Your task to perform on an android device: empty trash in the gmail app Image 0: 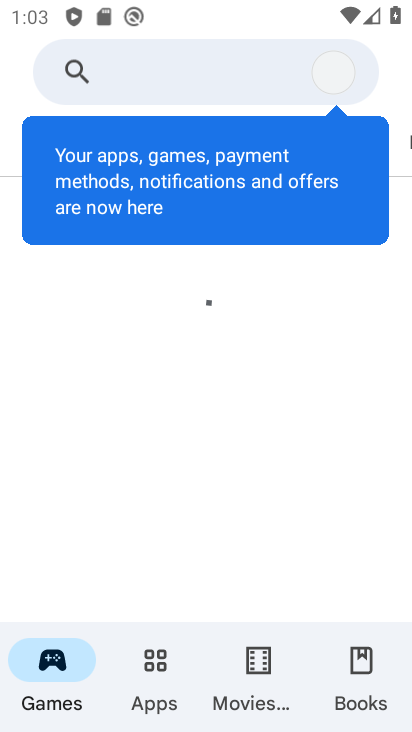
Step 0: press home button
Your task to perform on an android device: empty trash in the gmail app Image 1: 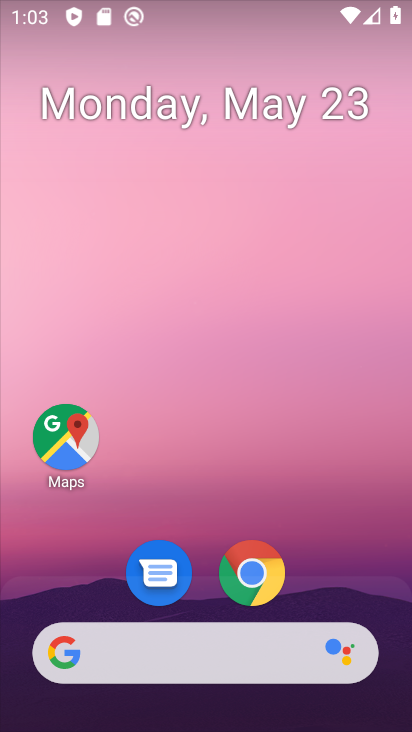
Step 1: drag from (315, 611) to (289, 83)
Your task to perform on an android device: empty trash in the gmail app Image 2: 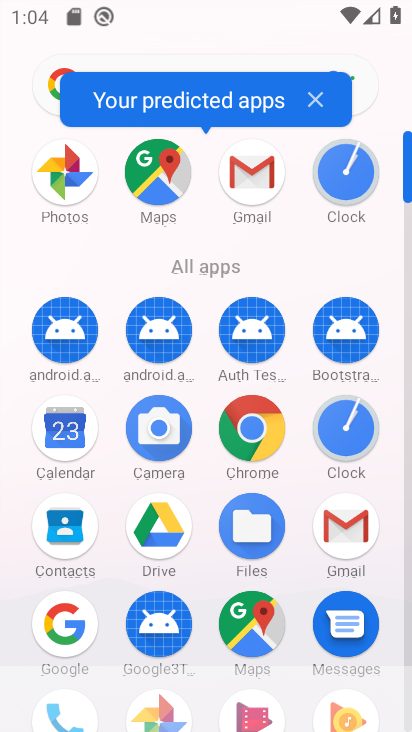
Step 2: click (339, 511)
Your task to perform on an android device: empty trash in the gmail app Image 3: 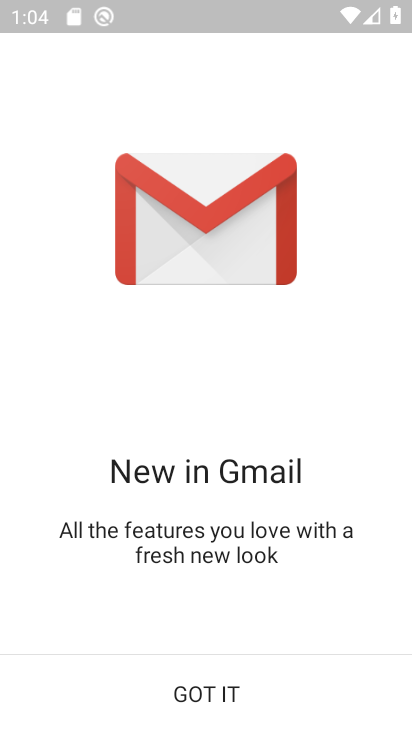
Step 3: click (202, 684)
Your task to perform on an android device: empty trash in the gmail app Image 4: 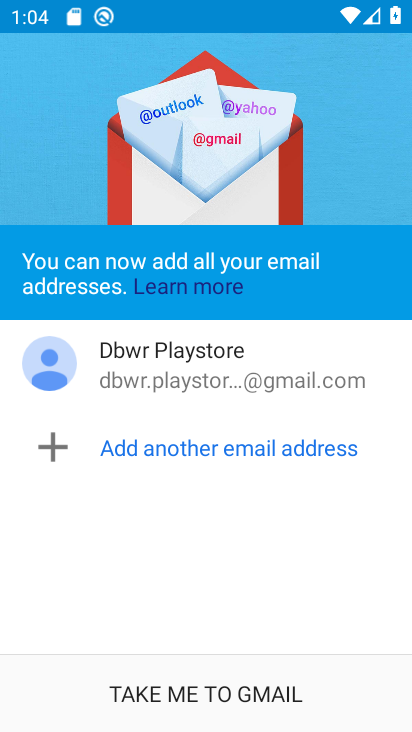
Step 4: click (202, 684)
Your task to perform on an android device: empty trash in the gmail app Image 5: 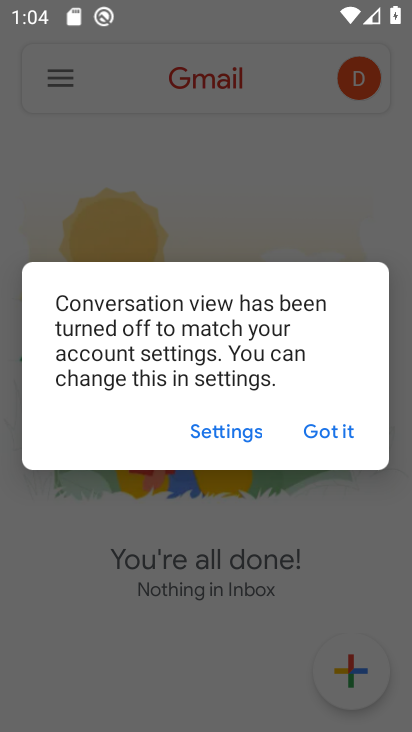
Step 5: click (341, 421)
Your task to perform on an android device: empty trash in the gmail app Image 6: 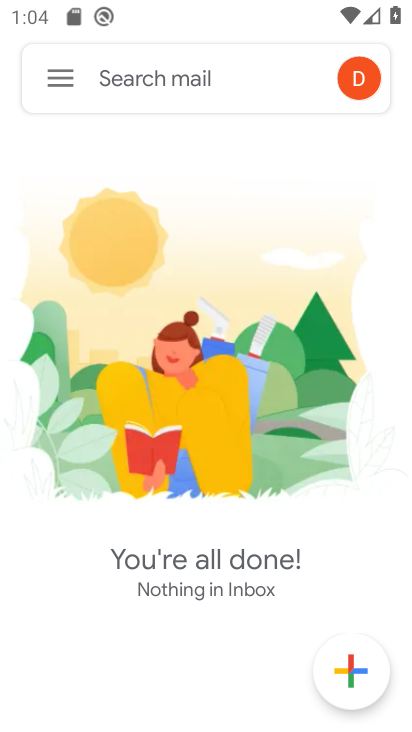
Step 6: click (54, 76)
Your task to perform on an android device: empty trash in the gmail app Image 7: 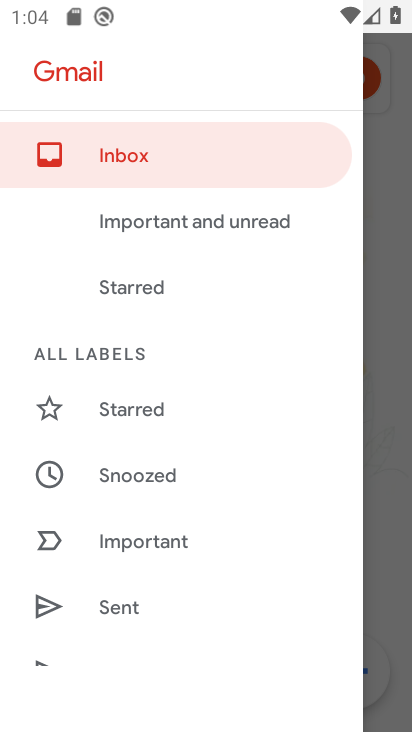
Step 7: drag from (158, 571) to (164, 279)
Your task to perform on an android device: empty trash in the gmail app Image 8: 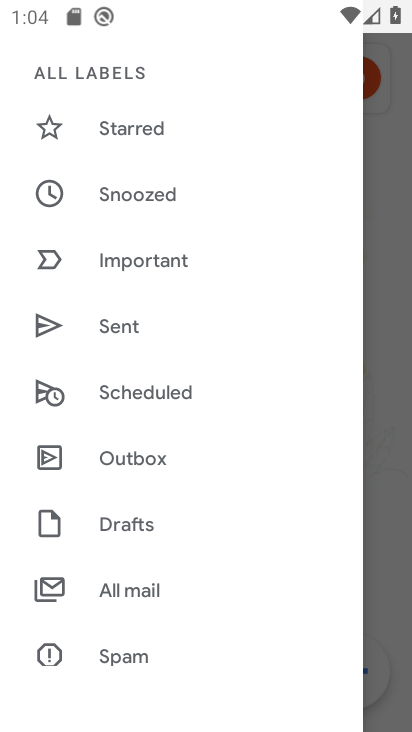
Step 8: drag from (146, 581) to (181, 139)
Your task to perform on an android device: empty trash in the gmail app Image 9: 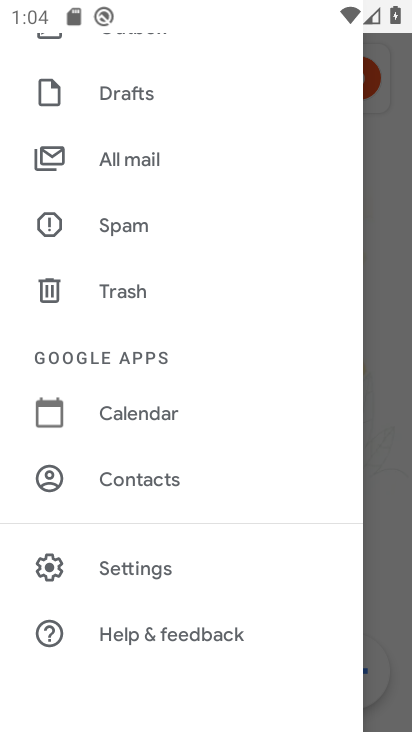
Step 9: click (148, 282)
Your task to perform on an android device: empty trash in the gmail app Image 10: 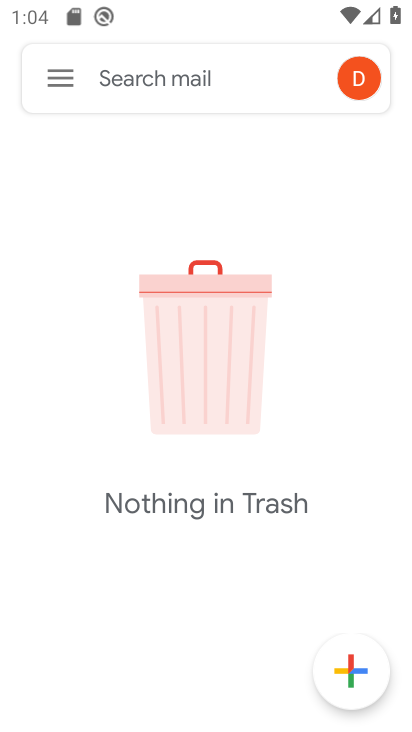
Step 10: task complete